Your task to perform on an android device: What's on my calendar today? Image 0: 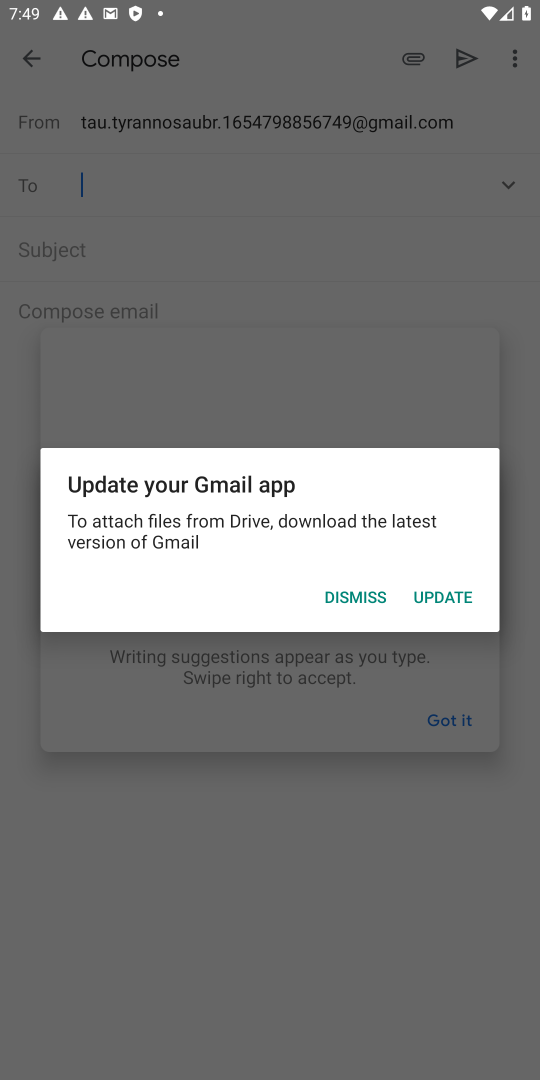
Step 0: press home button
Your task to perform on an android device: What's on my calendar today? Image 1: 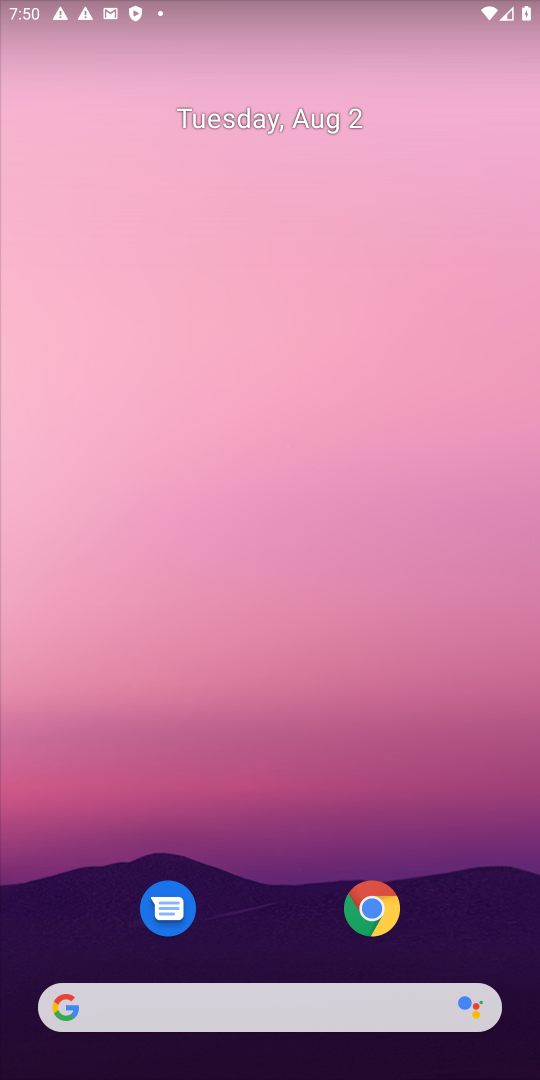
Step 1: drag from (204, 828) to (268, 391)
Your task to perform on an android device: What's on my calendar today? Image 2: 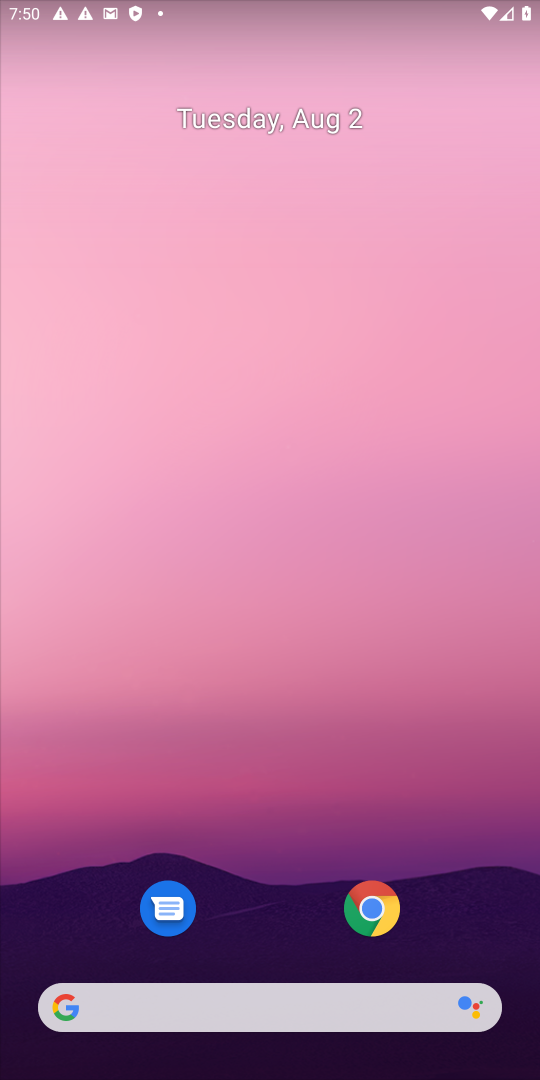
Step 2: drag from (300, 976) to (327, 495)
Your task to perform on an android device: What's on my calendar today? Image 3: 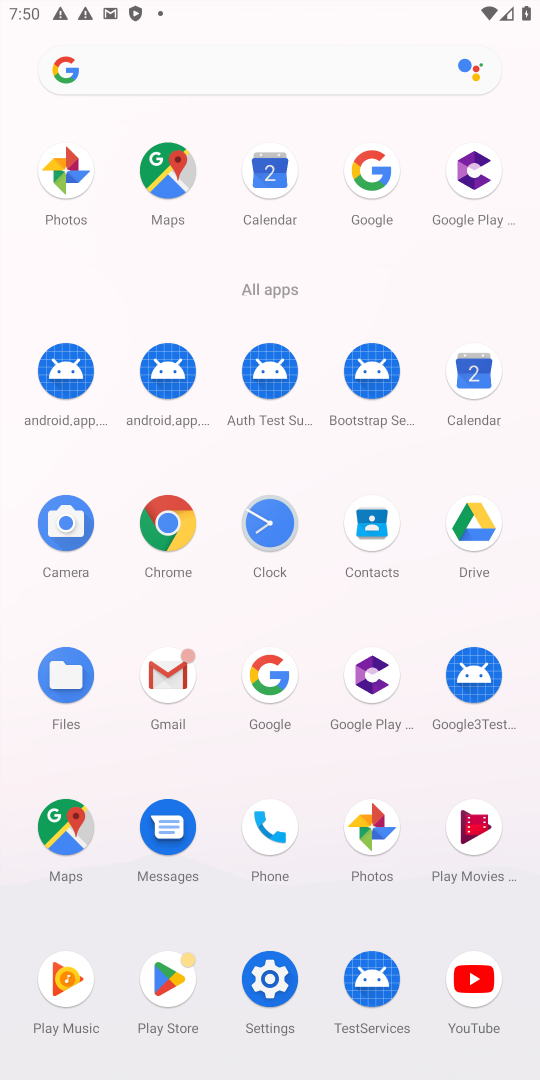
Step 3: click (493, 396)
Your task to perform on an android device: What's on my calendar today? Image 4: 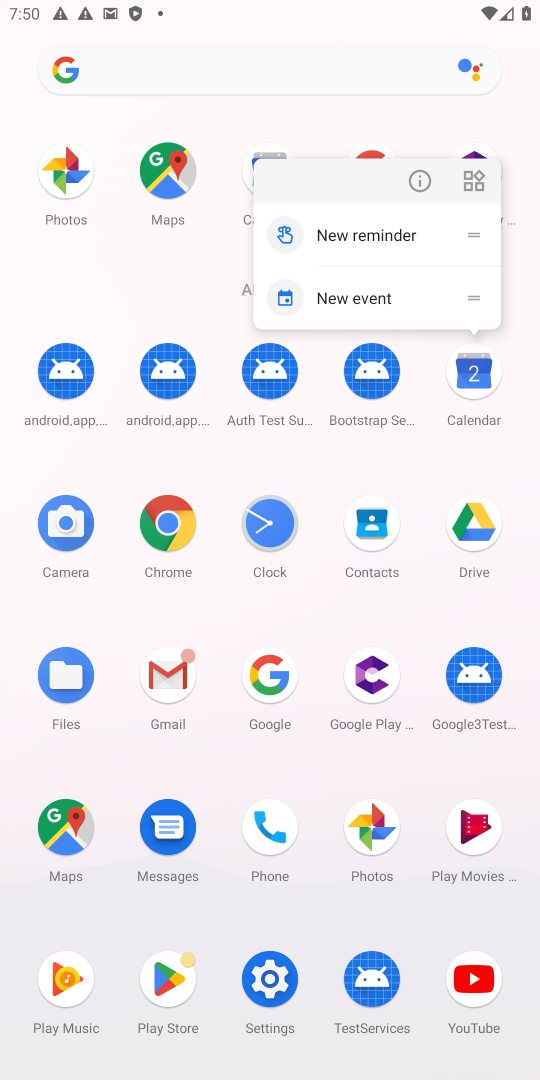
Step 4: click (493, 396)
Your task to perform on an android device: What's on my calendar today? Image 5: 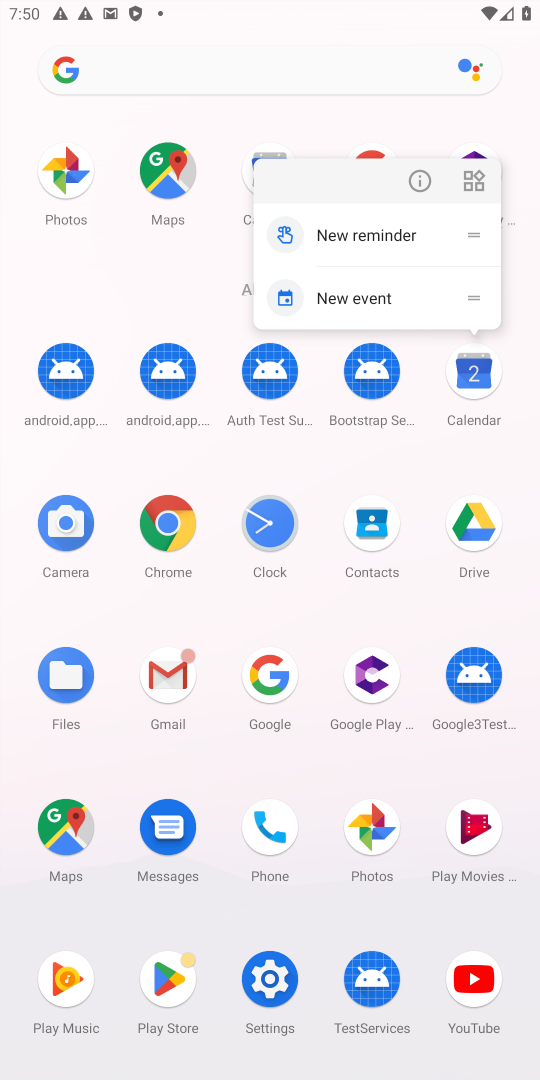
Step 5: click (493, 396)
Your task to perform on an android device: What's on my calendar today? Image 6: 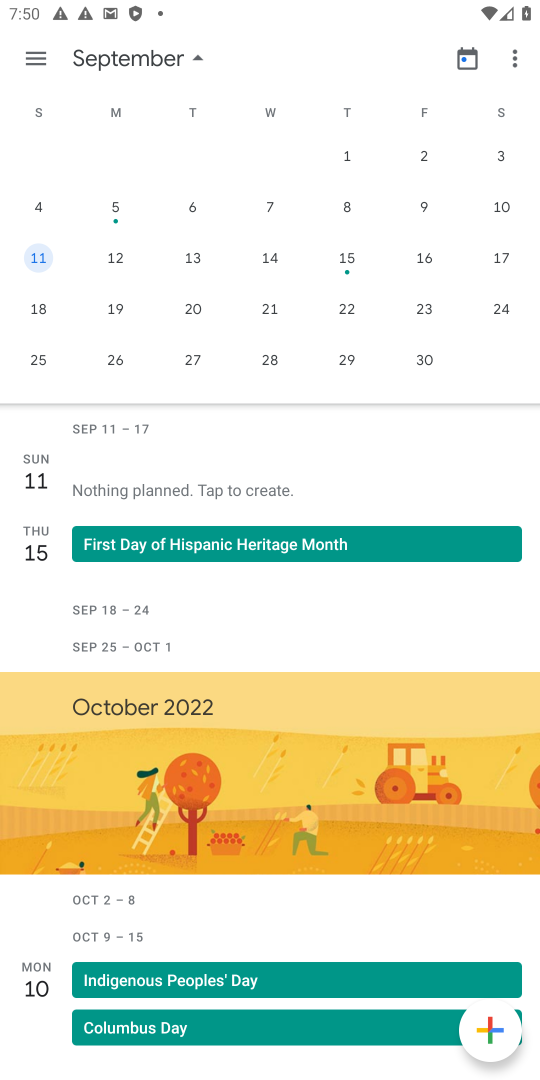
Step 6: drag from (70, 222) to (415, 279)
Your task to perform on an android device: What's on my calendar today? Image 7: 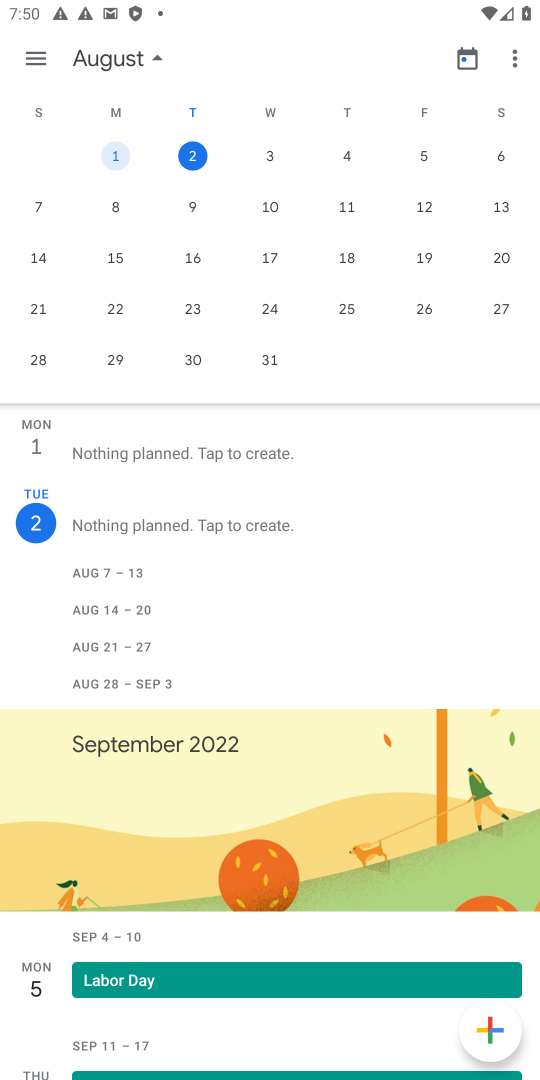
Step 7: drag from (63, 272) to (523, 401)
Your task to perform on an android device: What's on my calendar today? Image 8: 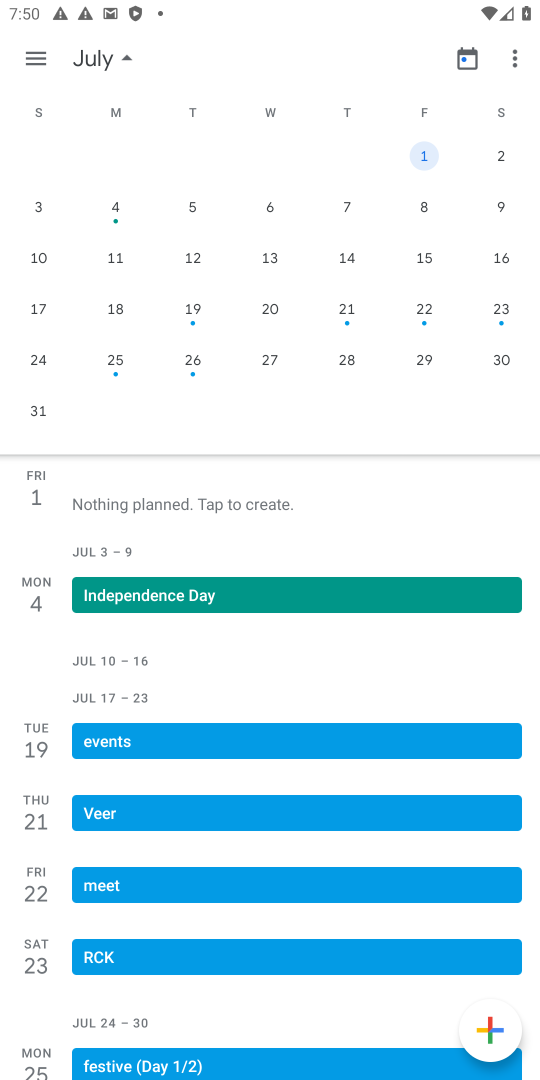
Step 8: drag from (522, 328) to (36, 317)
Your task to perform on an android device: What's on my calendar today? Image 9: 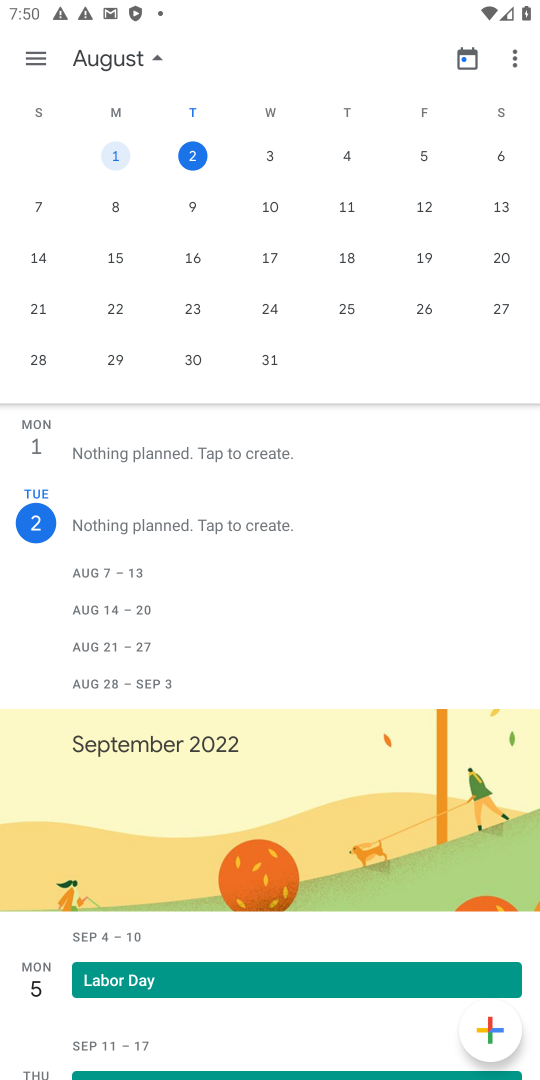
Step 9: click (184, 155)
Your task to perform on an android device: What's on my calendar today? Image 10: 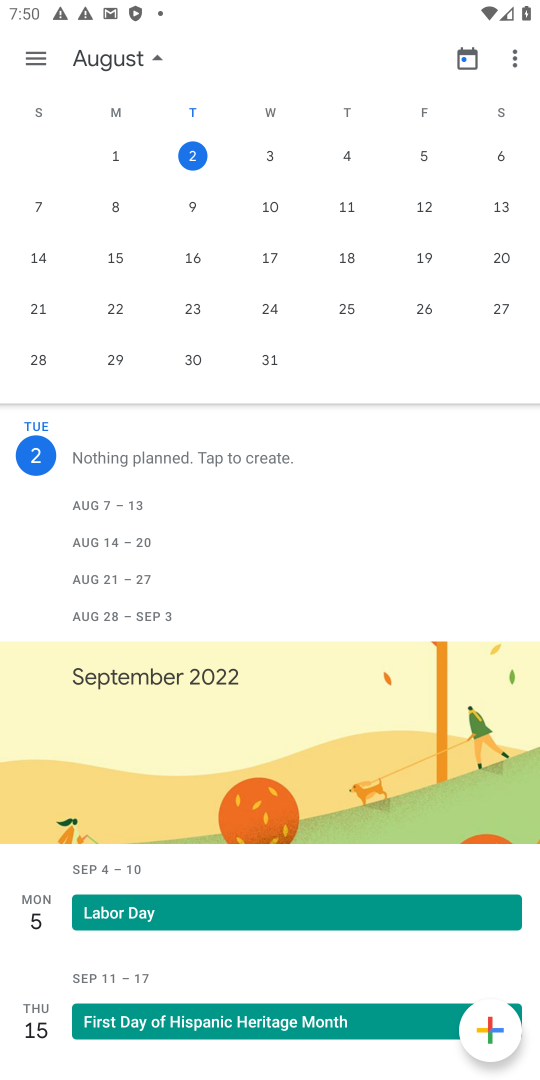
Step 10: click (120, 160)
Your task to perform on an android device: What's on my calendar today? Image 11: 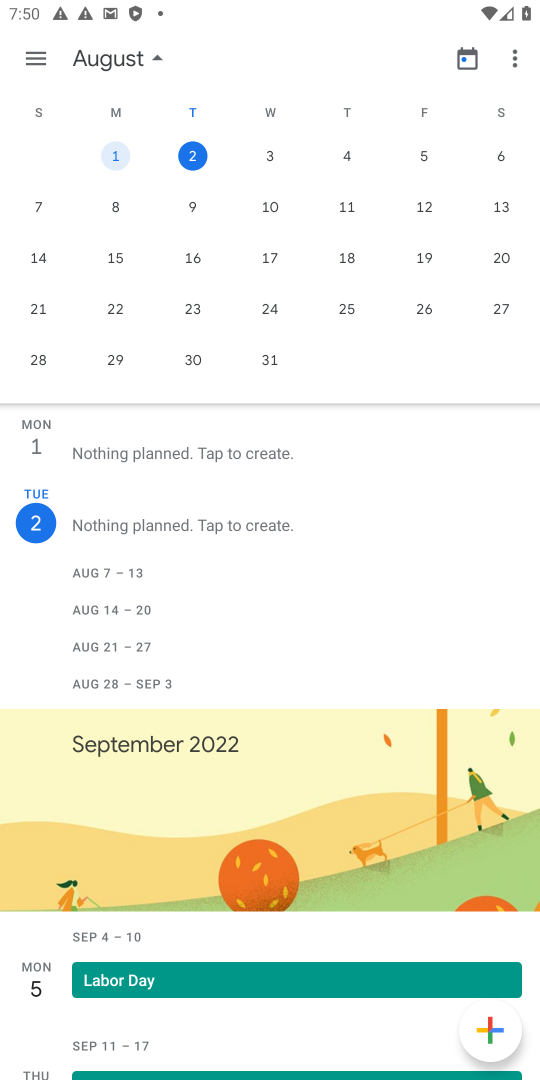
Step 11: click (191, 154)
Your task to perform on an android device: What's on my calendar today? Image 12: 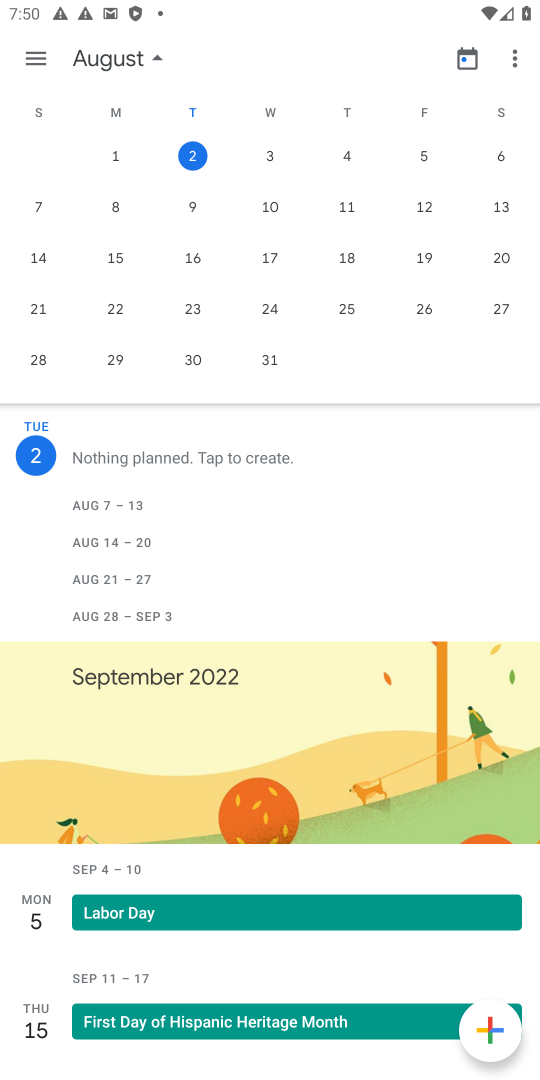
Step 12: task complete